Your task to perform on an android device: see sites visited before in the chrome app Image 0: 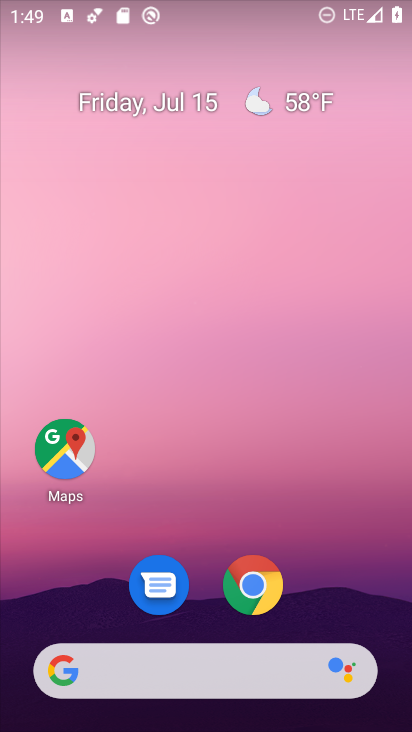
Step 0: click (244, 591)
Your task to perform on an android device: see sites visited before in the chrome app Image 1: 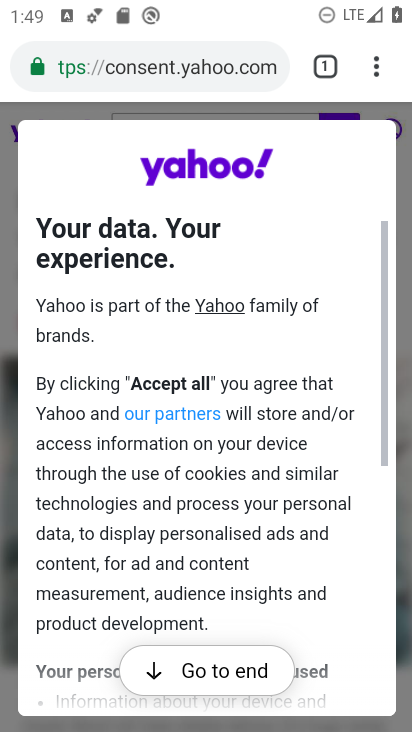
Step 1: click (375, 61)
Your task to perform on an android device: see sites visited before in the chrome app Image 2: 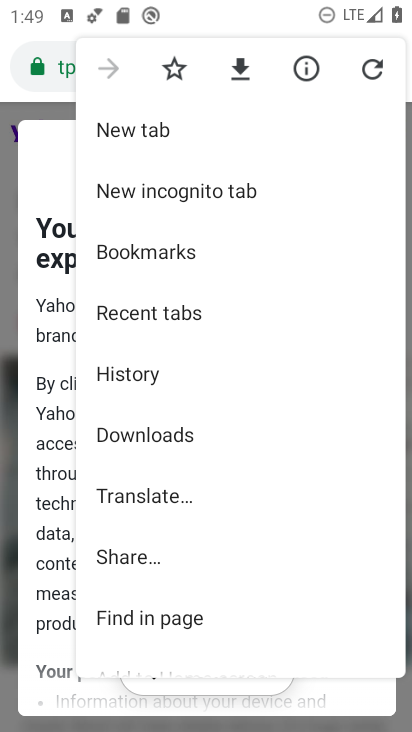
Step 2: click (192, 312)
Your task to perform on an android device: see sites visited before in the chrome app Image 3: 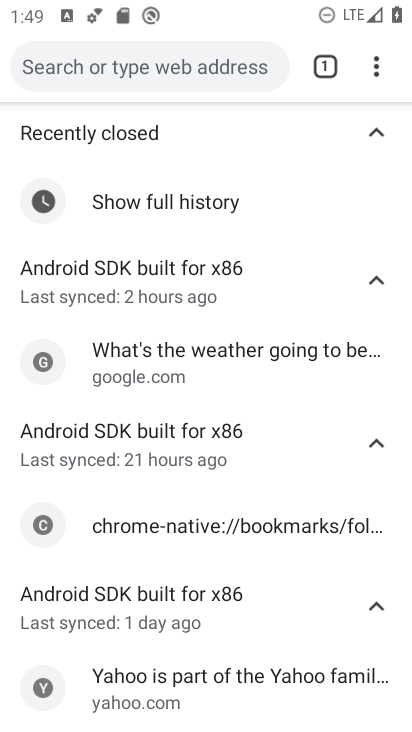
Step 3: task complete